Your task to perform on an android device: toggle sleep mode Image 0: 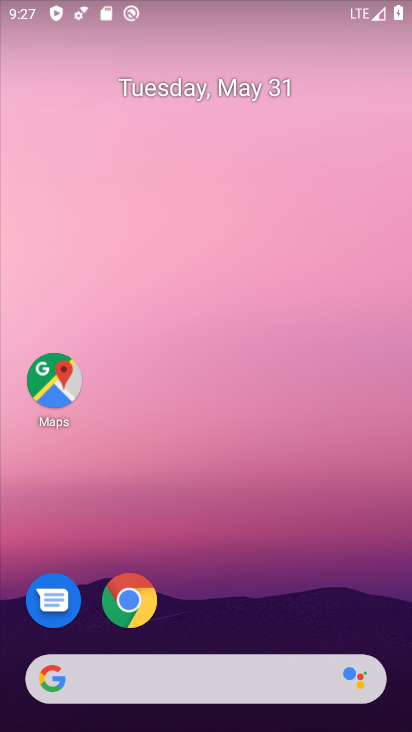
Step 0: drag from (205, 595) to (259, 64)
Your task to perform on an android device: toggle sleep mode Image 1: 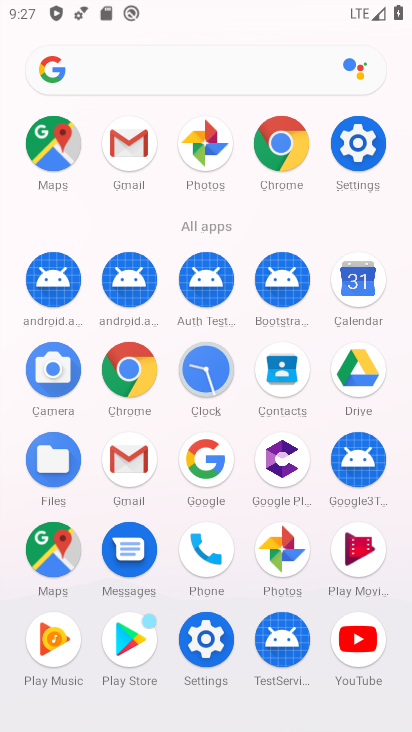
Step 1: click (340, 145)
Your task to perform on an android device: toggle sleep mode Image 2: 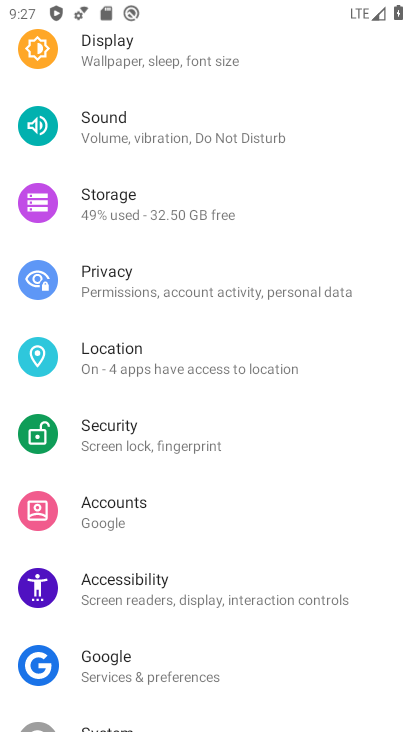
Step 2: drag from (192, 116) to (192, 673)
Your task to perform on an android device: toggle sleep mode Image 3: 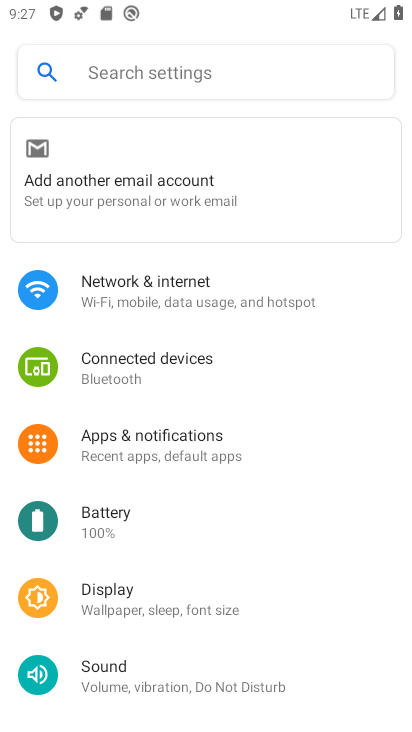
Step 3: click (120, 70)
Your task to perform on an android device: toggle sleep mode Image 4: 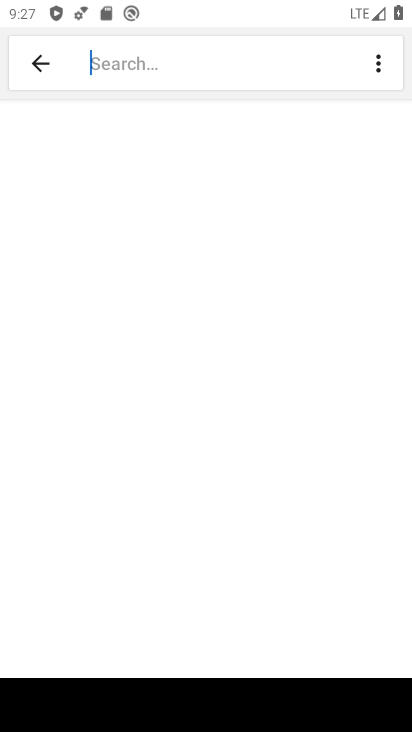
Step 4: type "sleep mode"
Your task to perform on an android device: toggle sleep mode Image 5: 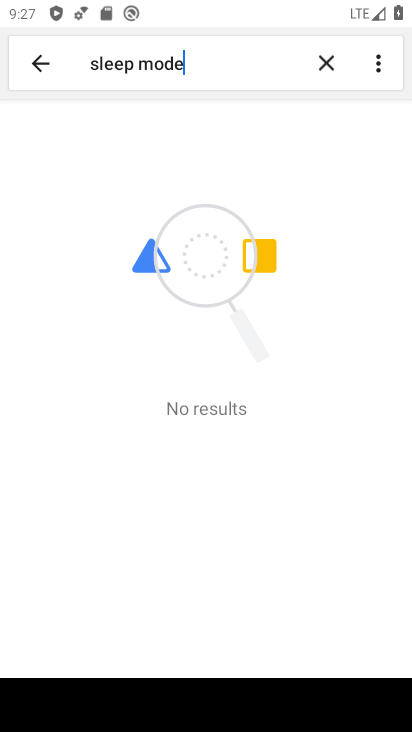
Step 5: task complete